Your task to perform on an android device: turn off airplane mode Image 0: 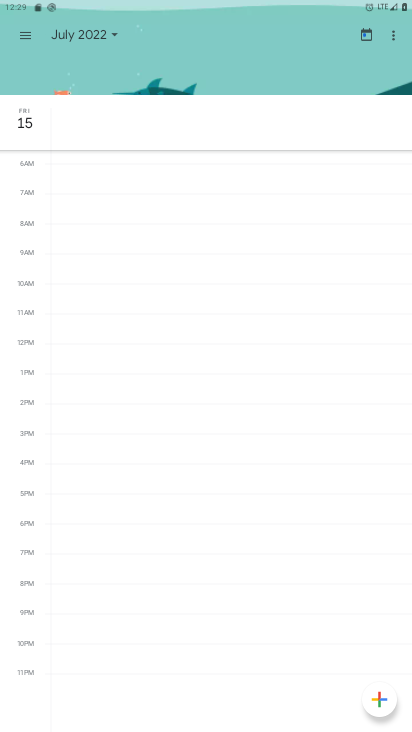
Step 0: drag from (222, 2) to (217, 547)
Your task to perform on an android device: turn off airplane mode Image 1: 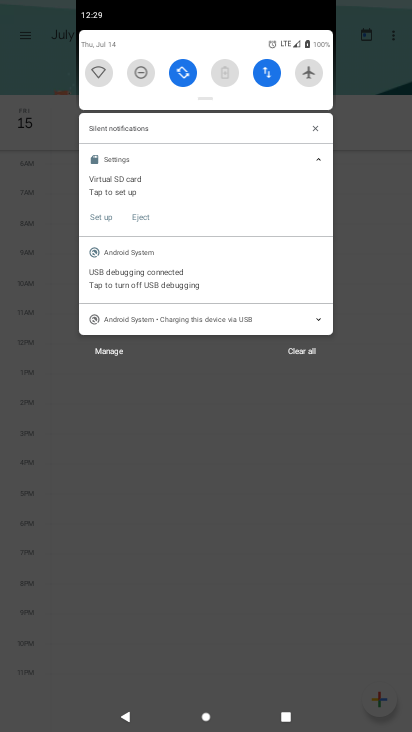
Step 1: task complete